Your task to perform on an android device: Open wifi settings Image 0: 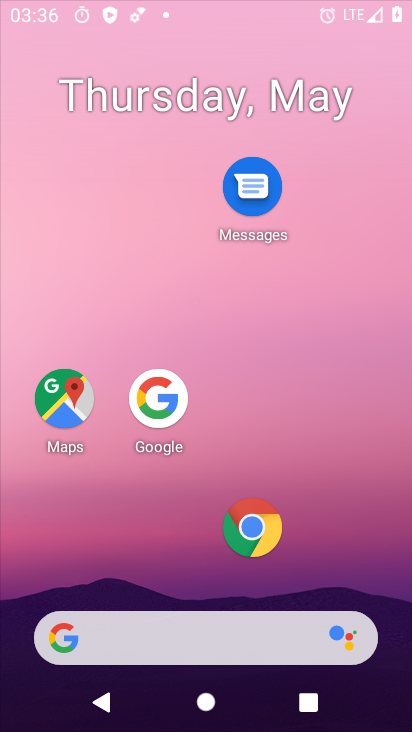
Step 0: click (197, 262)
Your task to perform on an android device: Open wifi settings Image 1: 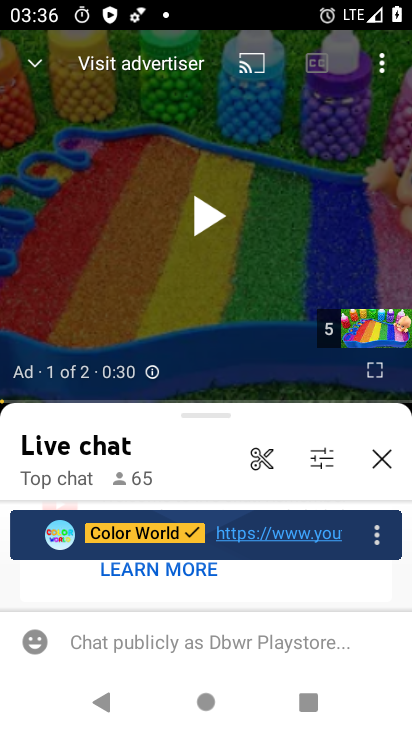
Step 1: press home button
Your task to perform on an android device: Open wifi settings Image 2: 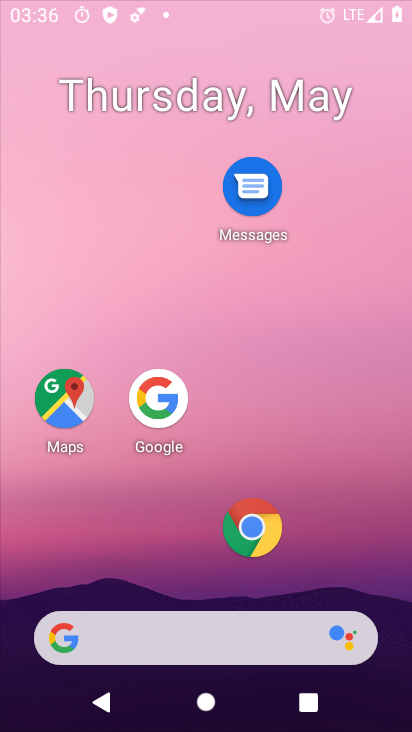
Step 2: drag from (217, 627) to (219, 171)
Your task to perform on an android device: Open wifi settings Image 3: 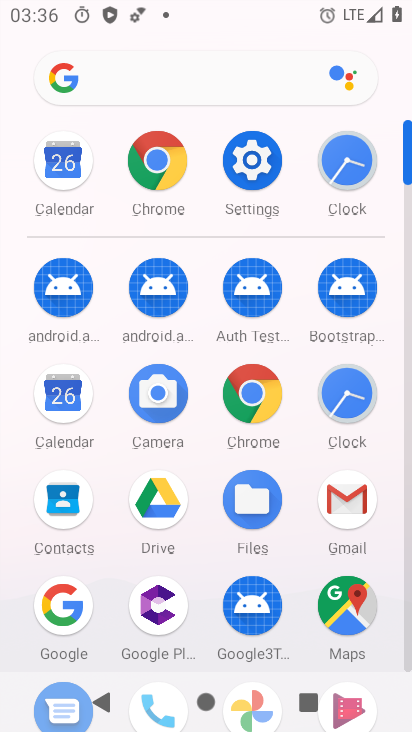
Step 3: click (239, 158)
Your task to perform on an android device: Open wifi settings Image 4: 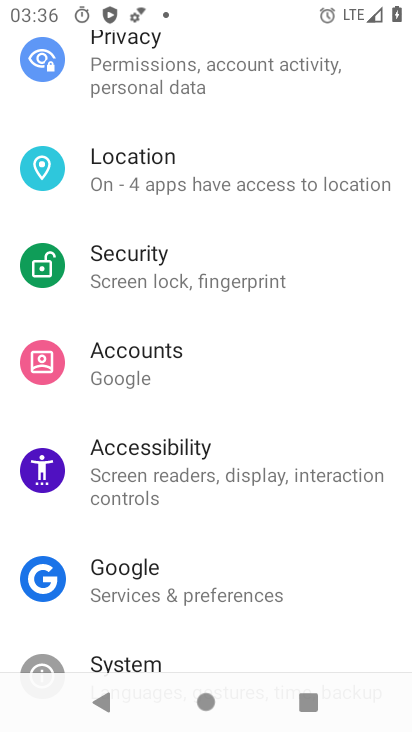
Step 4: drag from (191, 133) to (220, 628)
Your task to perform on an android device: Open wifi settings Image 5: 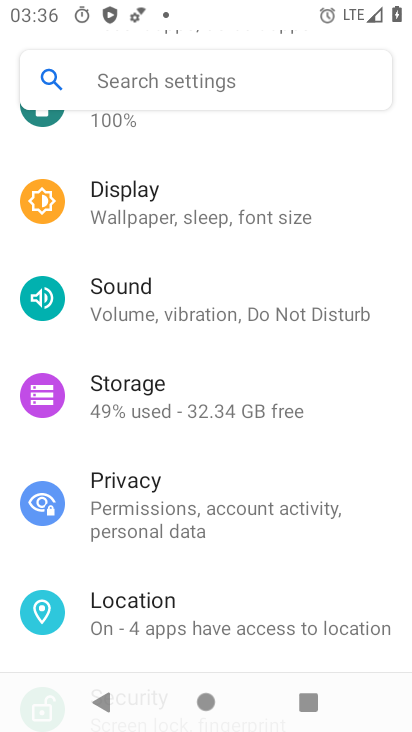
Step 5: drag from (221, 150) to (330, 611)
Your task to perform on an android device: Open wifi settings Image 6: 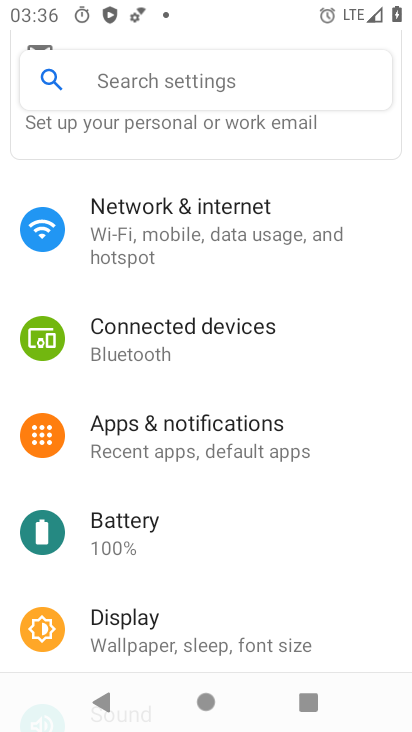
Step 6: click (179, 229)
Your task to perform on an android device: Open wifi settings Image 7: 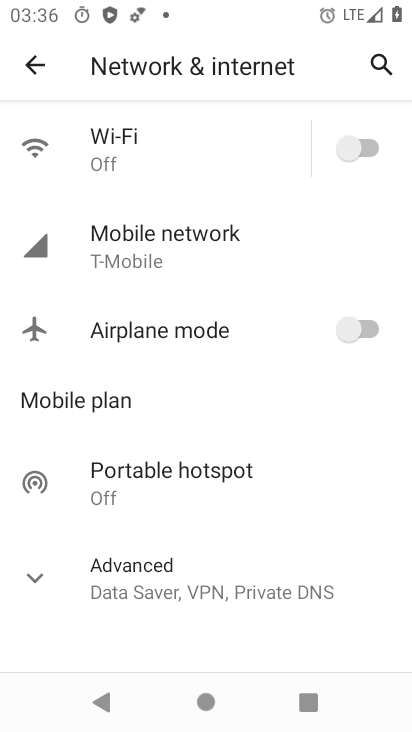
Step 7: click (170, 152)
Your task to perform on an android device: Open wifi settings Image 8: 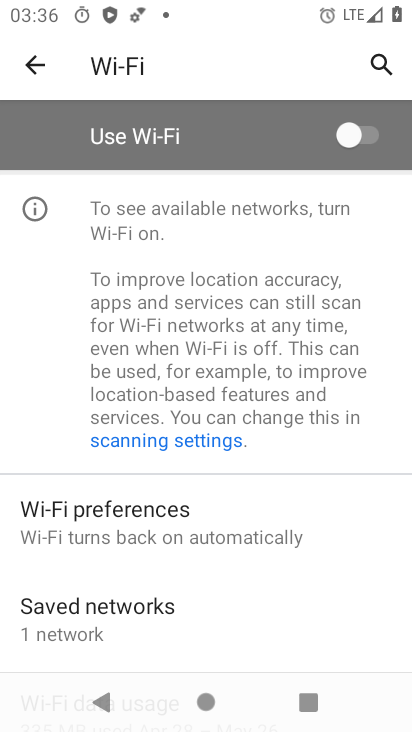
Step 8: task complete